Your task to perform on an android device: Go to Google maps Image 0: 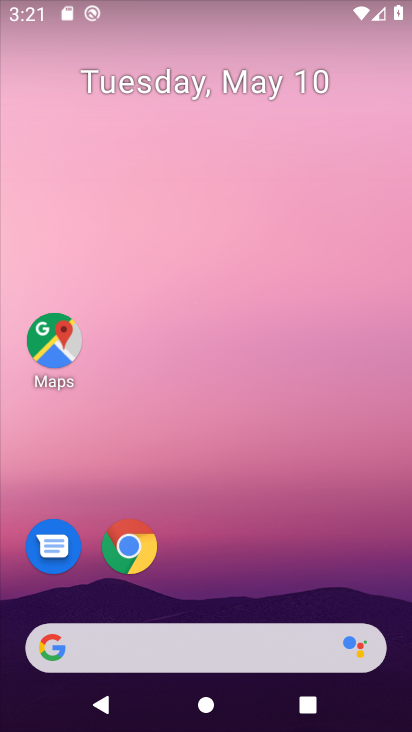
Step 0: click (48, 349)
Your task to perform on an android device: Go to Google maps Image 1: 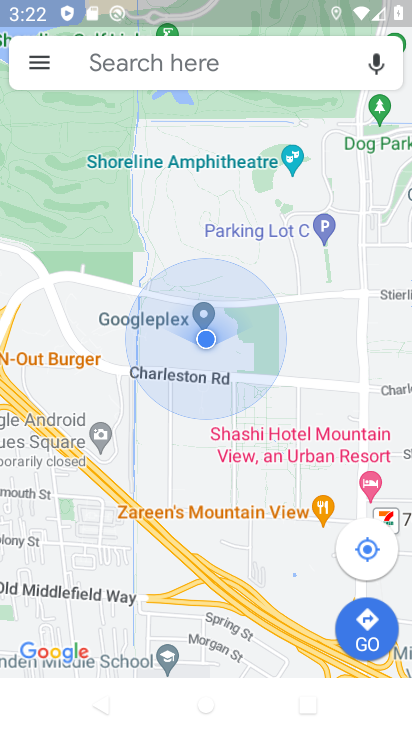
Step 1: task complete